Your task to perform on an android device: search for starred emails in the gmail app Image 0: 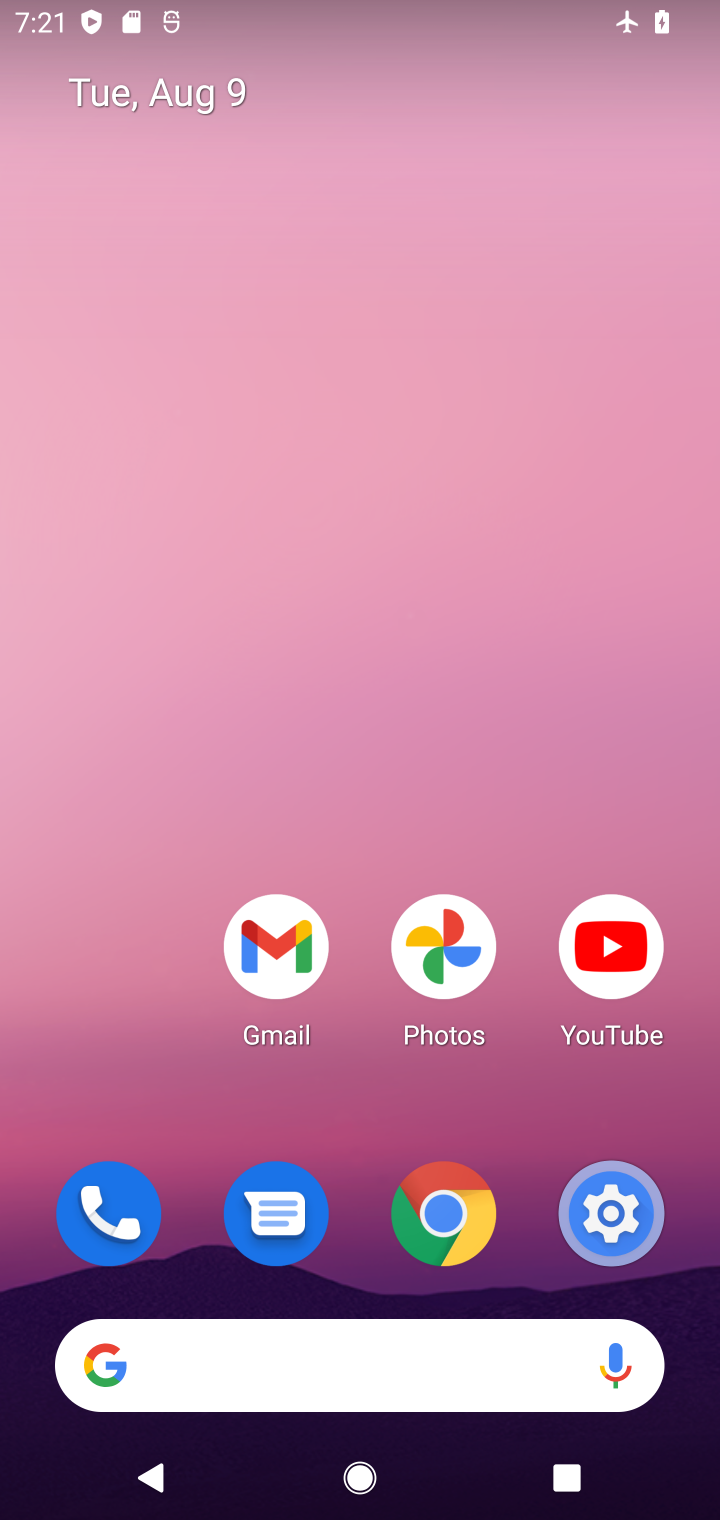
Step 0: drag from (349, 1285) to (259, 183)
Your task to perform on an android device: search for starred emails in the gmail app Image 1: 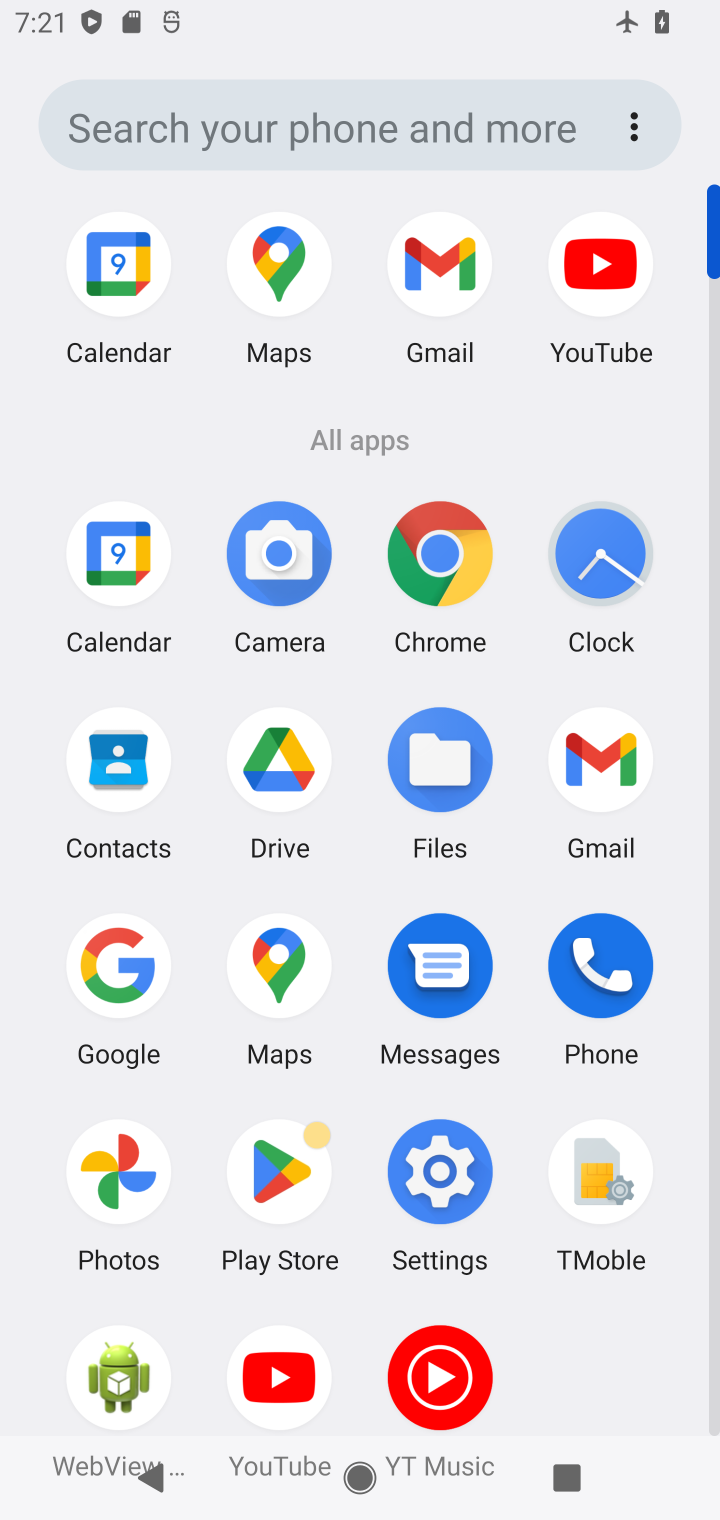
Step 1: click (593, 772)
Your task to perform on an android device: search for starred emails in the gmail app Image 2: 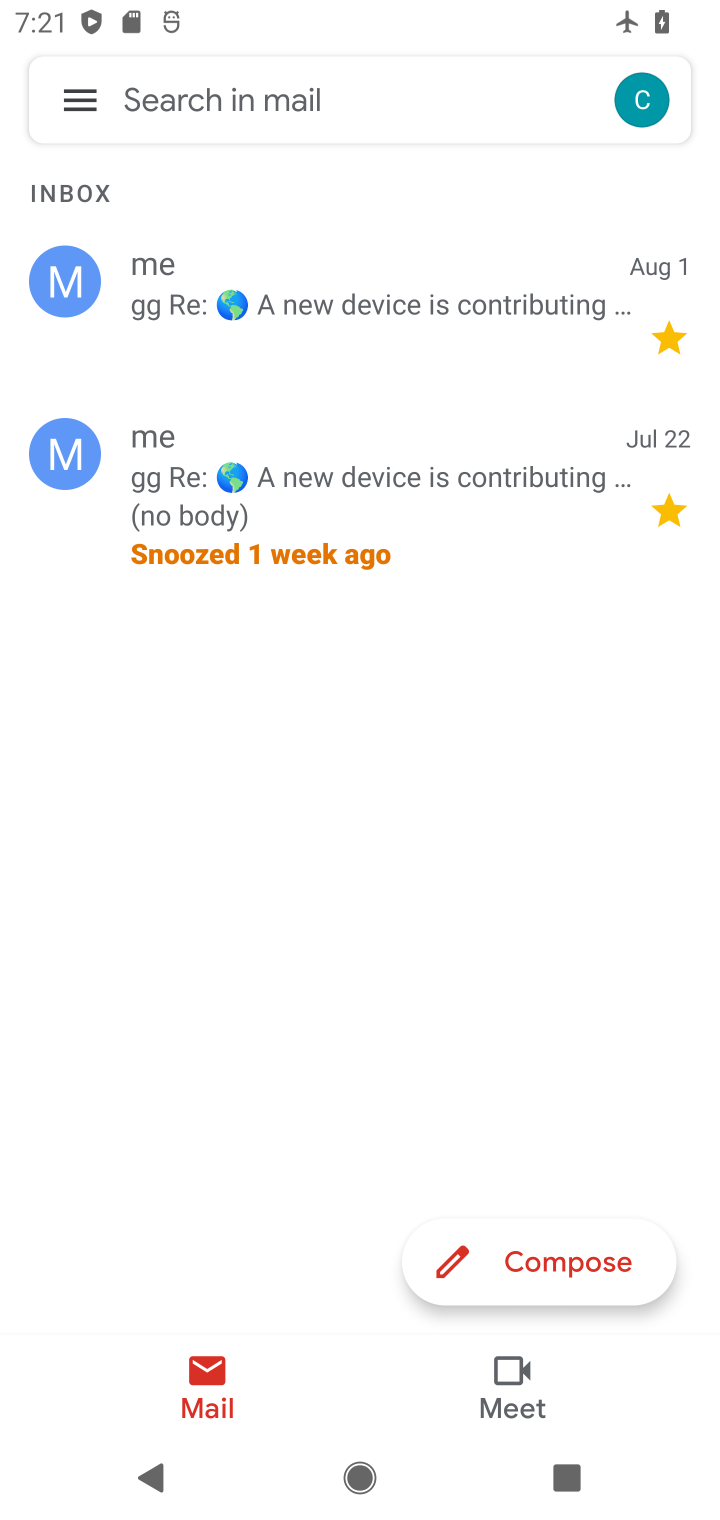
Step 2: click (78, 99)
Your task to perform on an android device: search for starred emails in the gmail app Image 3: 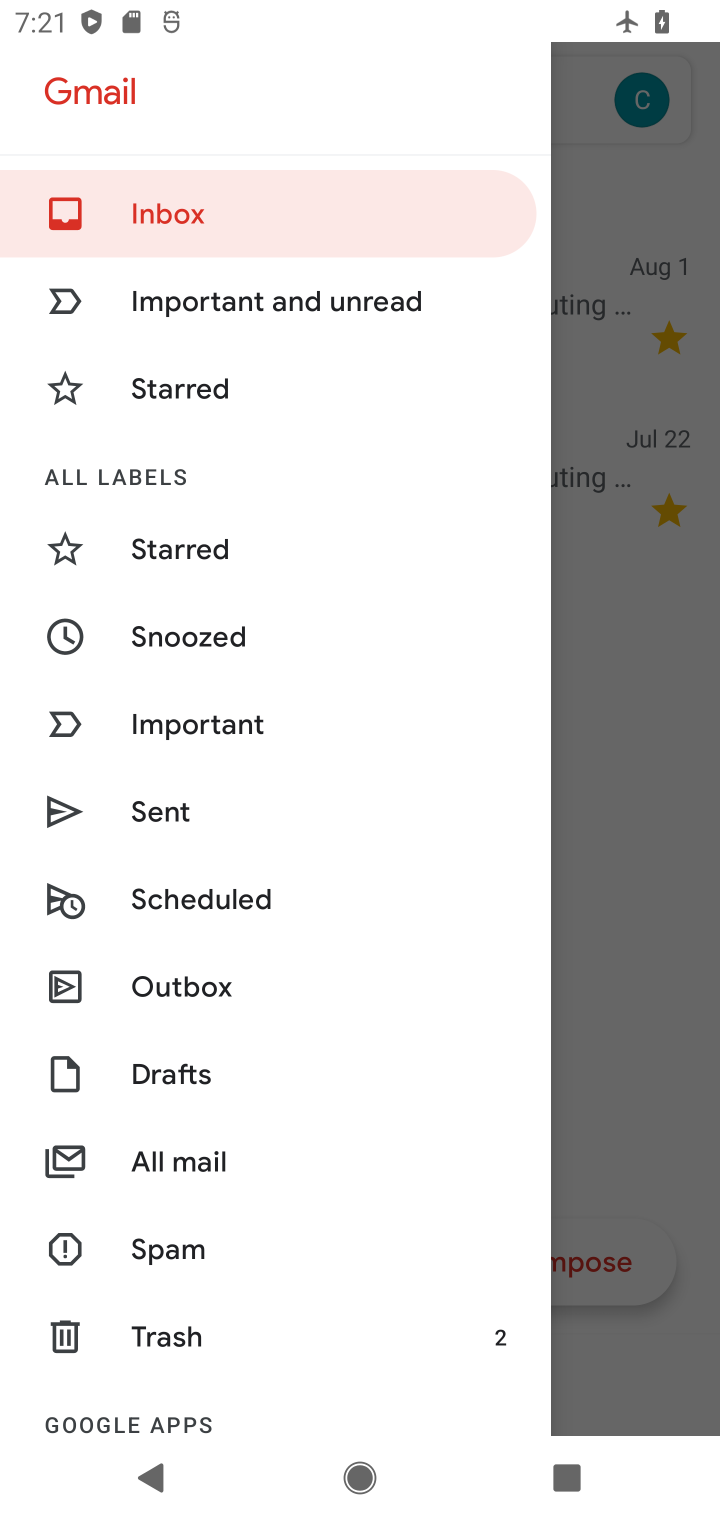
Step 3: click (176, 370)
Your task to perform on an android device: search for starred emails in the gmail app Image 4: 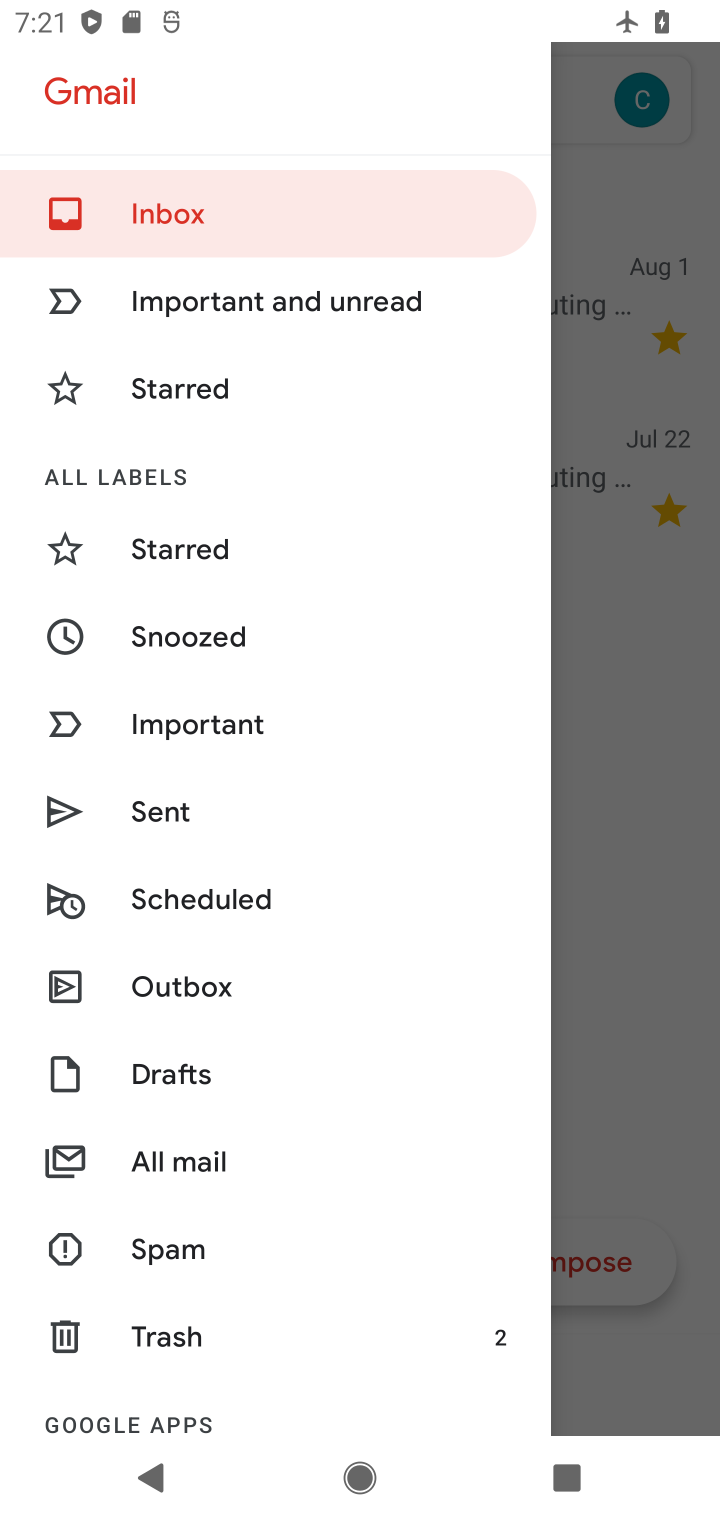
Step 4: click (176, 370)
Your task to perform on an android device: search for starred emails in the gmail app Image 5: 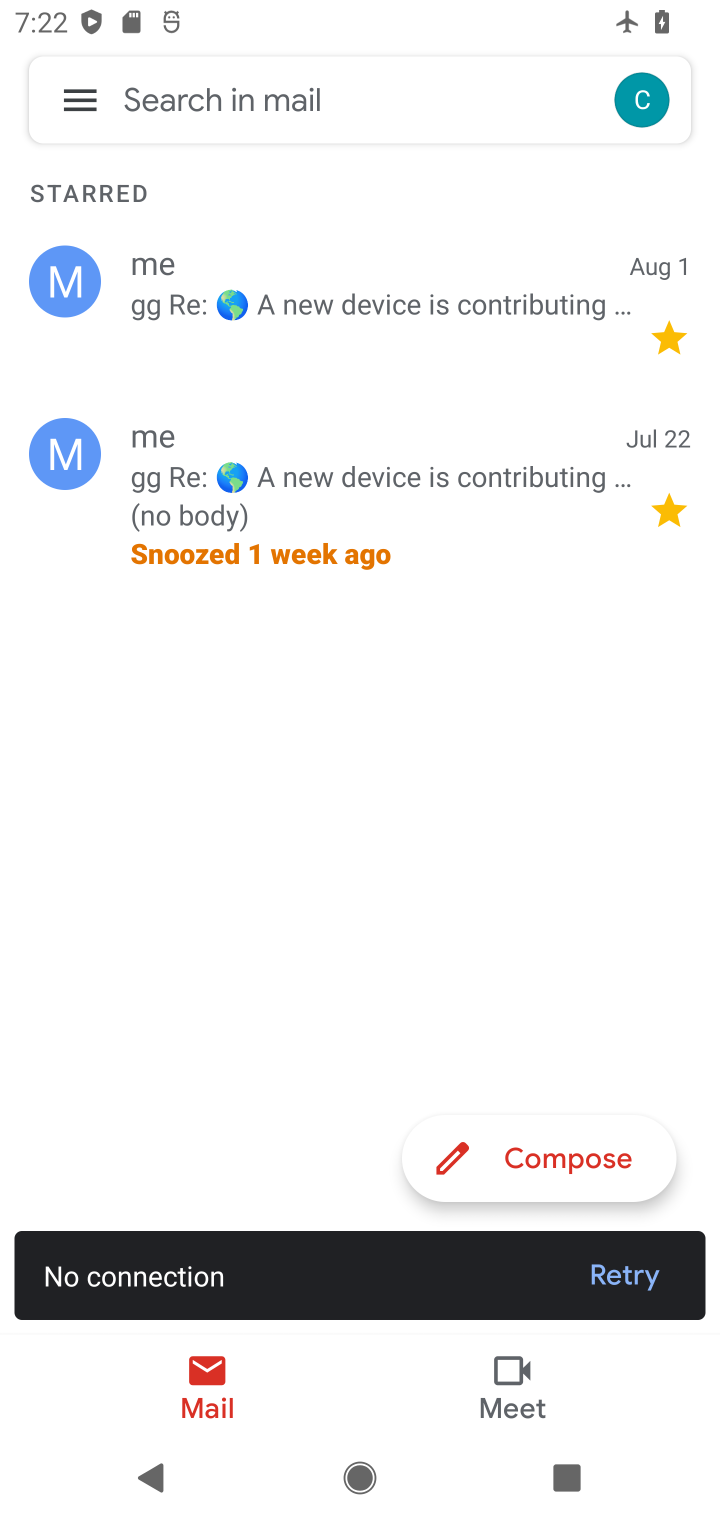
Step 5: task complete